Your task to perform on an android device: open a new tab in the chrome app Image 0: 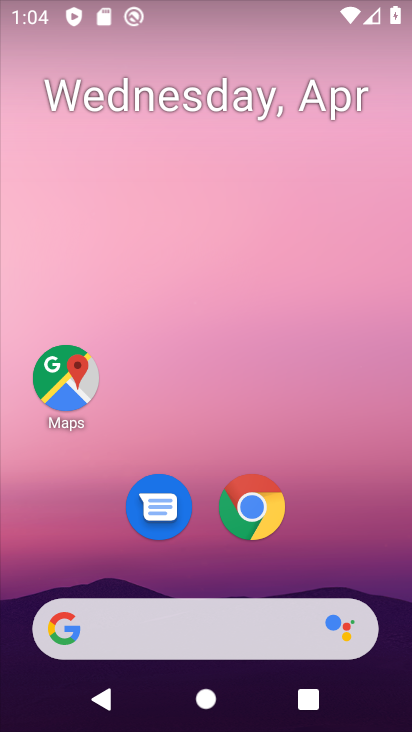
Step 0: click (258, 524)
Your task to perform on an android device: open a new tab in the chrome app Image 1: 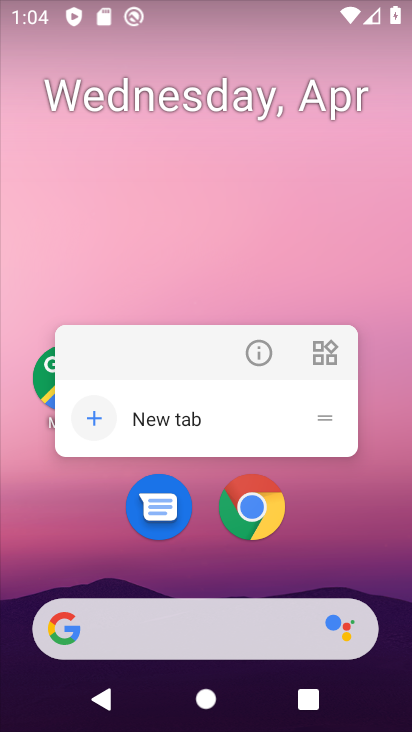
Step 1: click (257, 513)
Your task to perform on an android device: open a new tab in the chrome app Image 2: 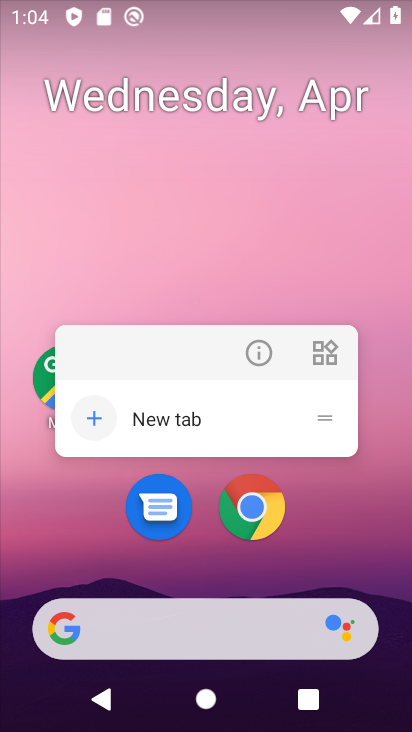
Step 2: click (257, 513)
Your task to perform on an android device: open a new tab in the chrome app Image 3: 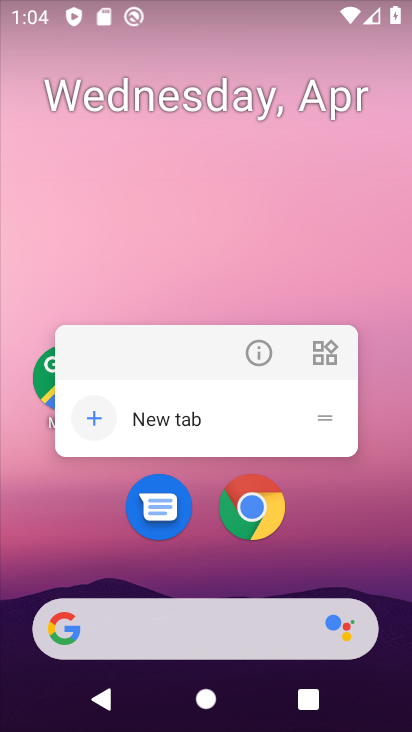
Step 3: click (258, 513)
Your task to perform on an android device: open a new tab in the chrome app Image 4: 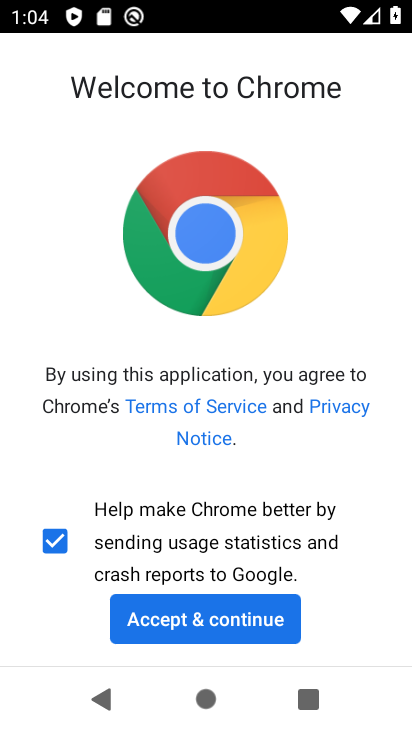
Step 4: click (258, 628)
Your task to perform on an android device: open a new tab in the chrome app Image 5: 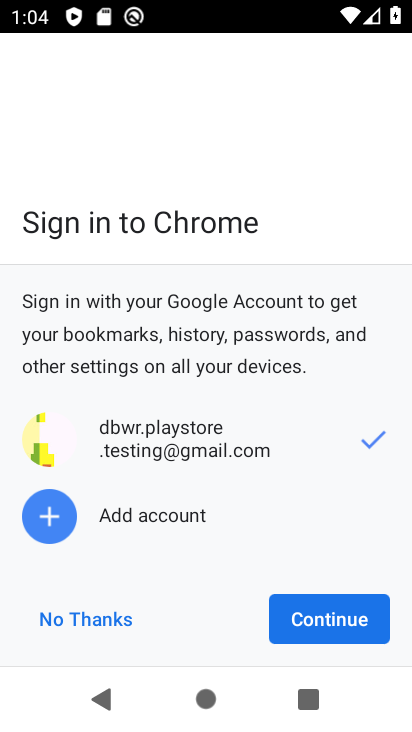
Step 5: click (308, 621)
Your task to perform on an android device: open a new tab in the chrome app Image 6: 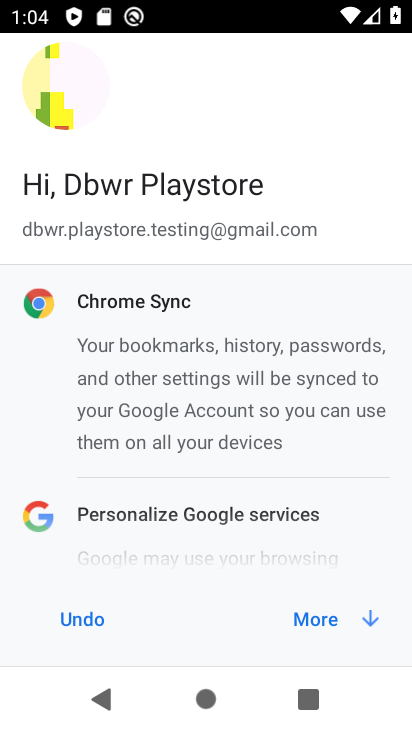
Step 6: click (354, 627)
Your task to perform on an android device: open a new tab in the chrome app Image 7: 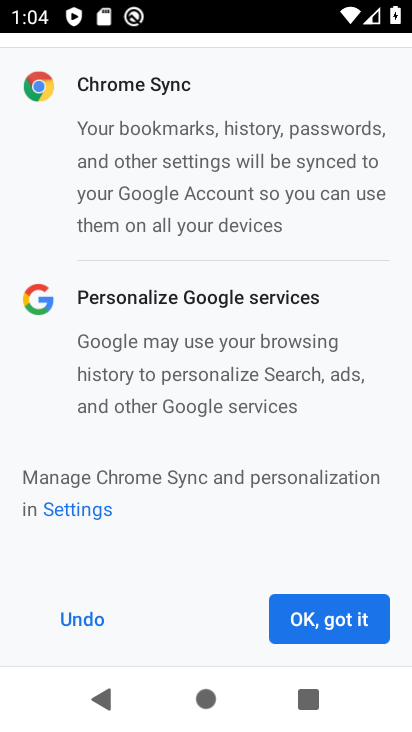
Step 7: click (354, 628)
Your task to perform on an android device: open a new tab in the chrome app Image 8: 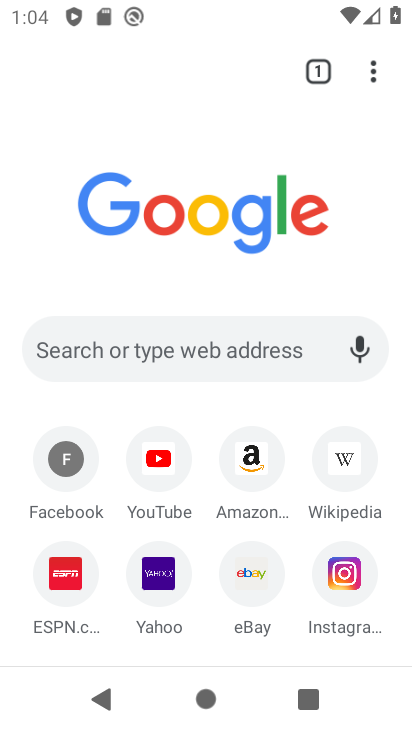
Step 8: task complete